Your task to perform on an android device: change your default location settings in chrome Image 0: 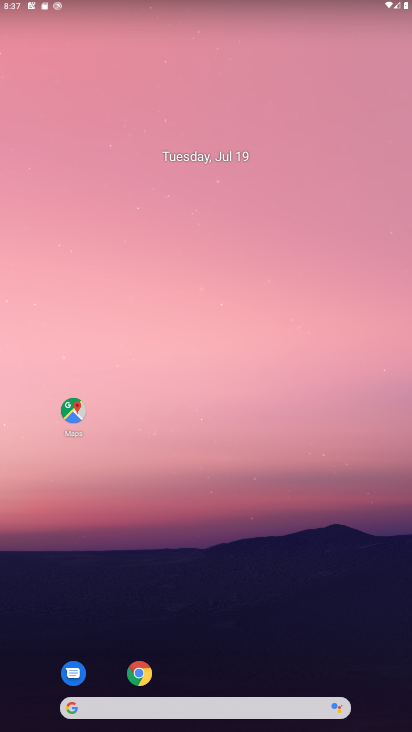
Step 0: click (139, 675)
Your task to perform on an android device: change your default location settings in chrome Image 1: 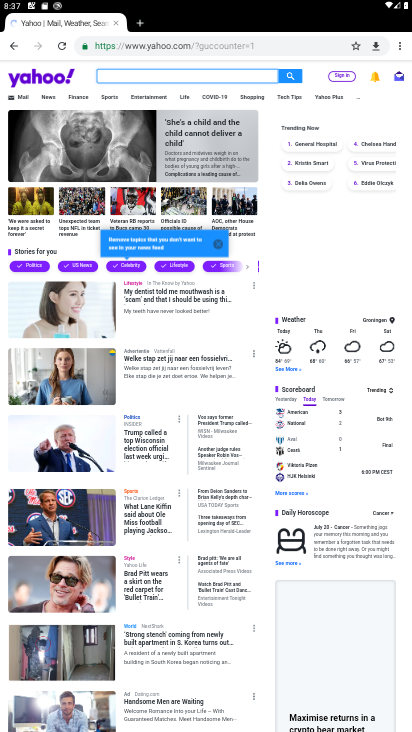
Step 1: click (401, 49)
Your task to perform on an android device: change your default location settings in chrome Image 2: 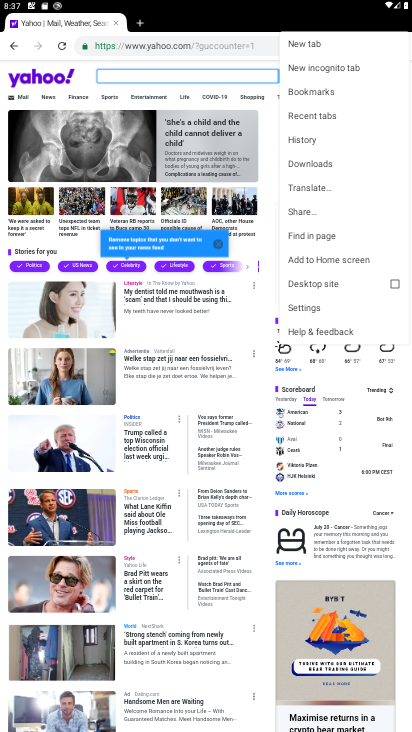
Step 2: click (298, 309)
Your task to perform on an android device: change your default location settings in chrome Image 3: 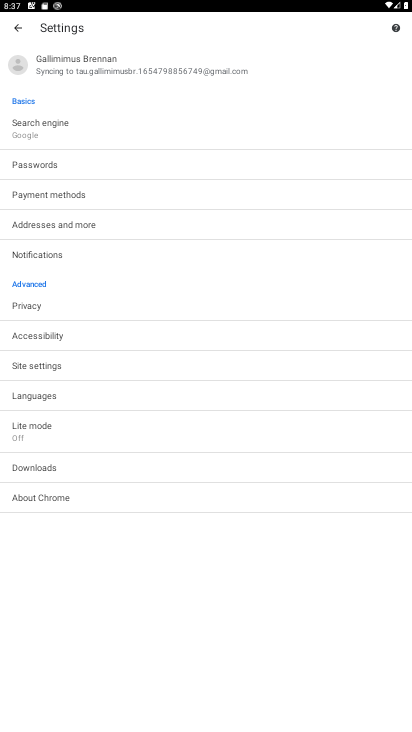
Step 3: click (35, 362)
Your task to perform on an android device: change your default location settings in chrome Image 4: 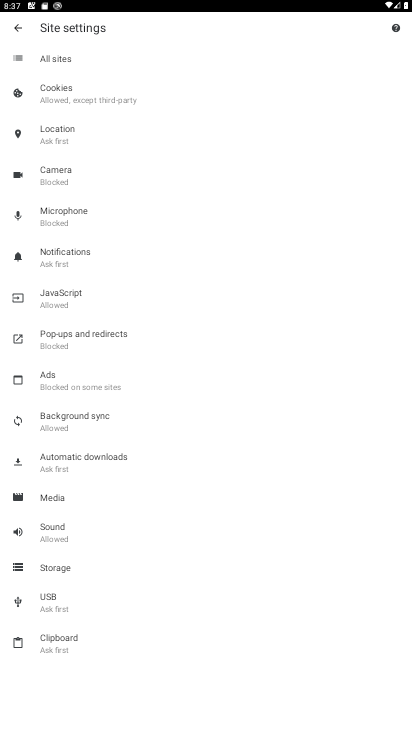
Step 4: click (58, 130)
Your task to perform on an android device: change your default location settings in chrome Image 5: 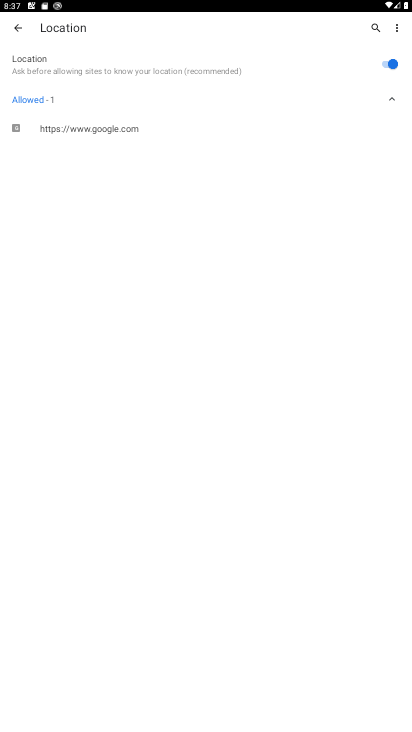
Step 5: click (383, 66)
Your task to perform on an android device: change your default location settings in chrome Image 6: 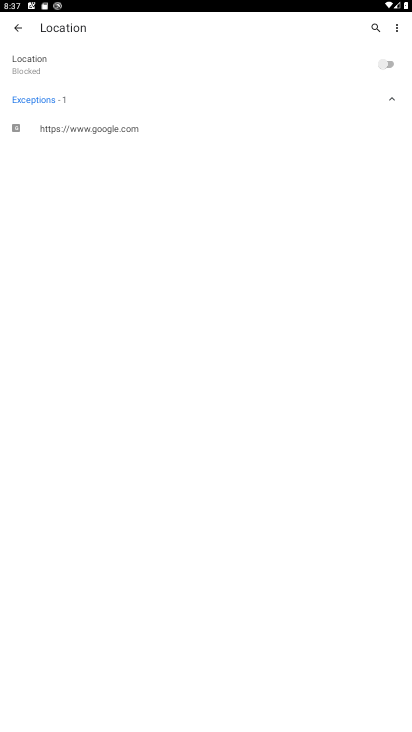
Step 6: task complete